Your task to perform on an android device: What's the news this evening? Image 0: 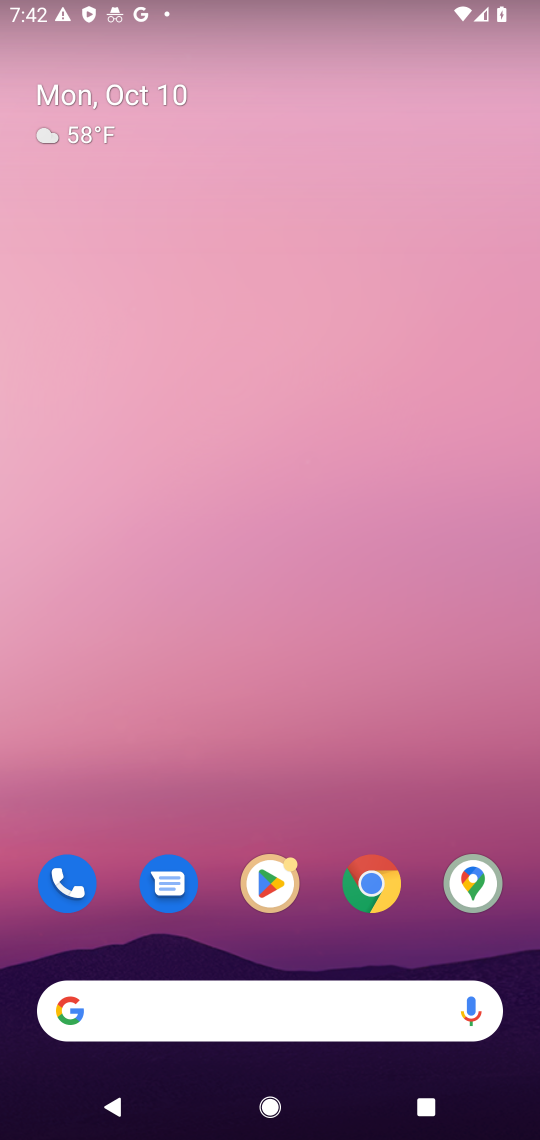
Step 0: drag from (369, 938) to (347, 182)
Your task to perform on an android device: What's the news this evening? Image 1: 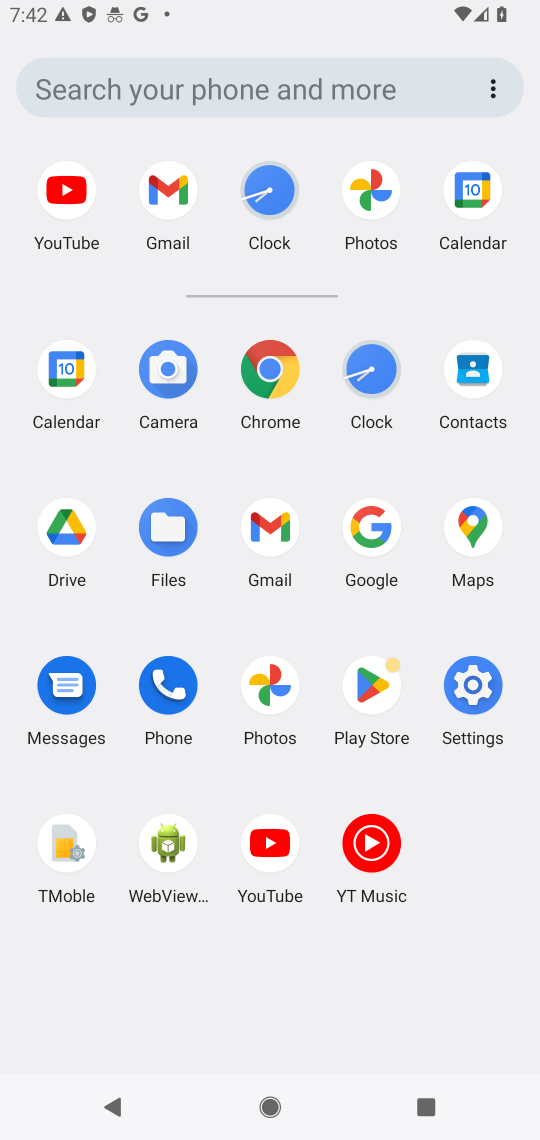
Step 1: click (381, 553)
Your task to perform on an android device: What's the news this evening? Image 2: 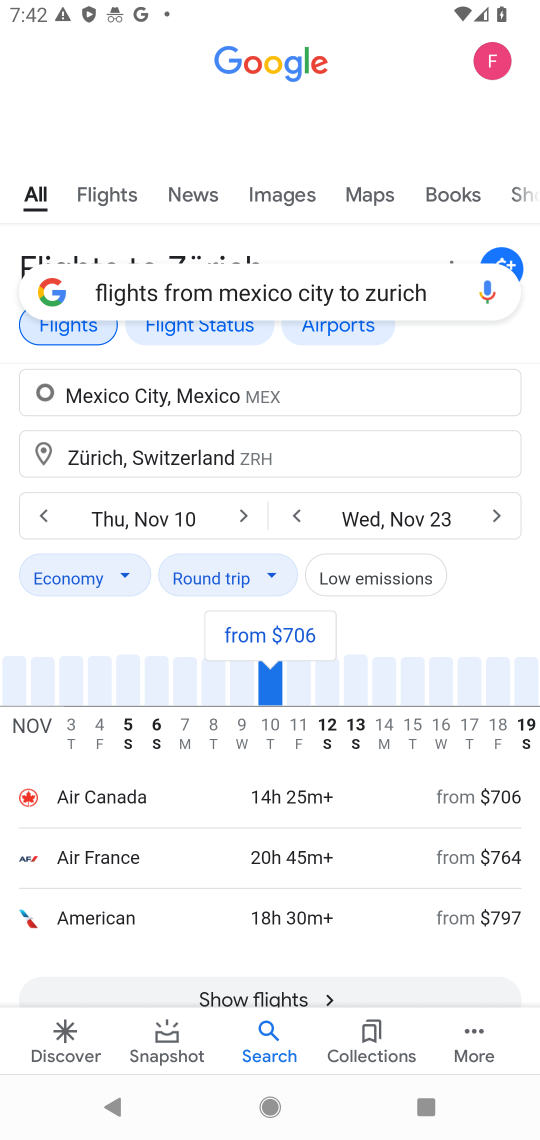
Step 2: click (427, 286)
Your task to perform on an android device: What's the news this evening? Image 3: 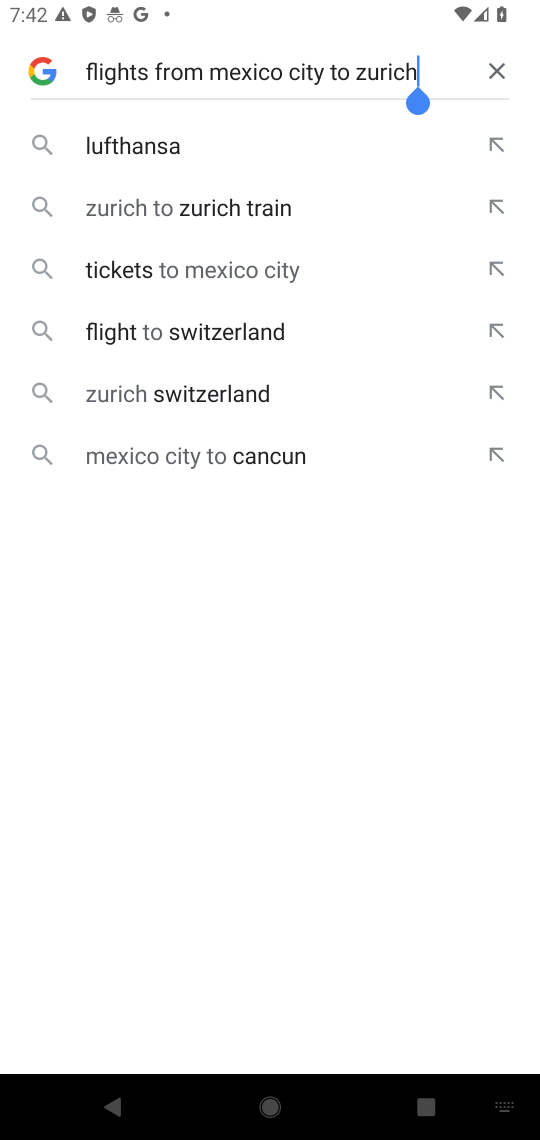
Step 3: click (496, 78)
Your task to perform on an android device: What's the news this evening? Image 4: 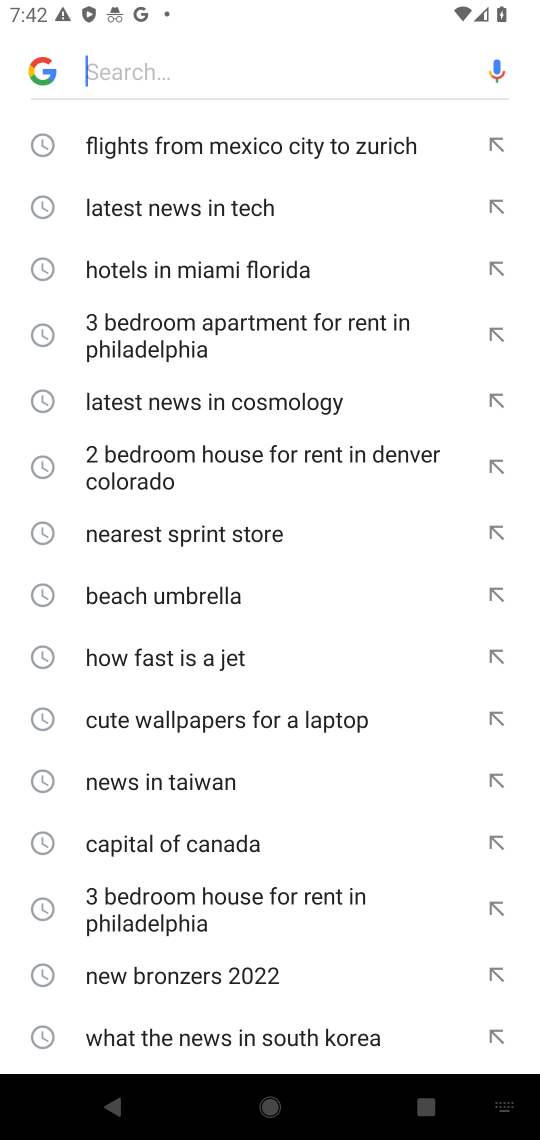
Step 4: type "news this evening"
Your task to perform on an android device: What's the news this evening? Image 5: 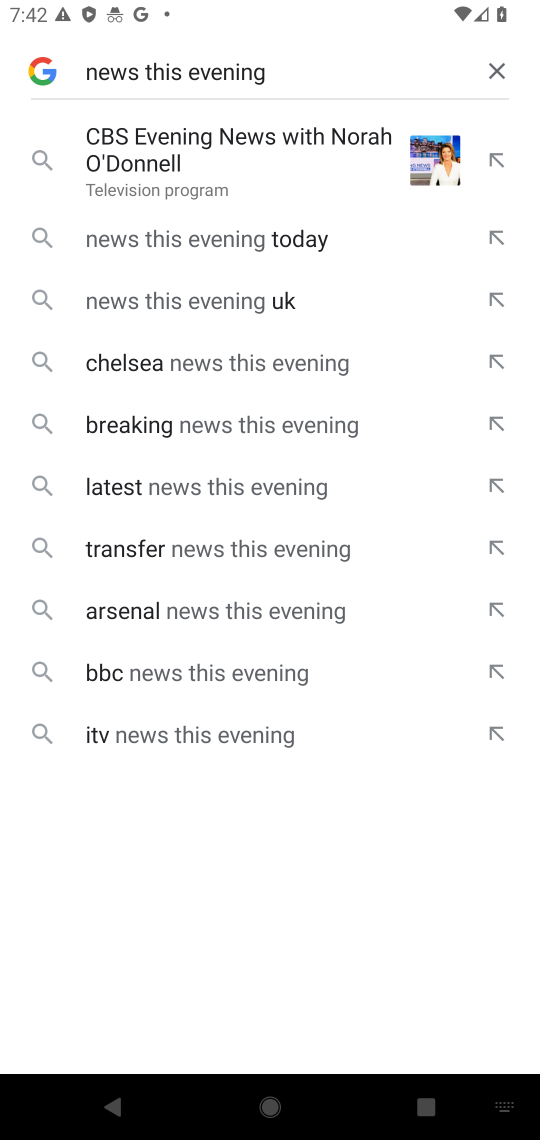
Step 5: click (283, 424)
Your task to perform on an android device: What's the news this evening? Image 6: 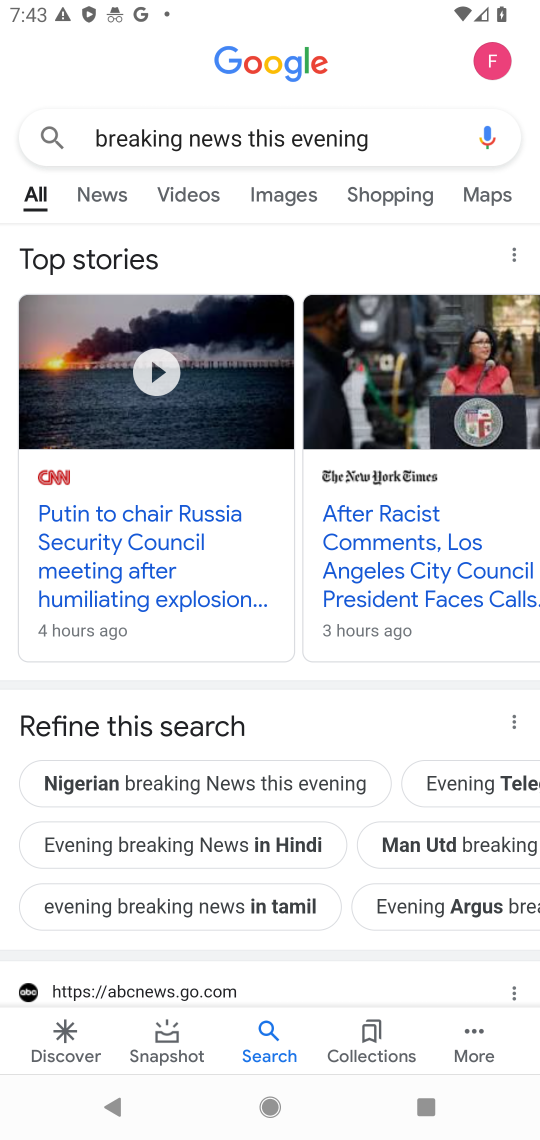
Step 6: click (109, 197)
Your task to perform on an android device: What's the news this evening? Image 7: 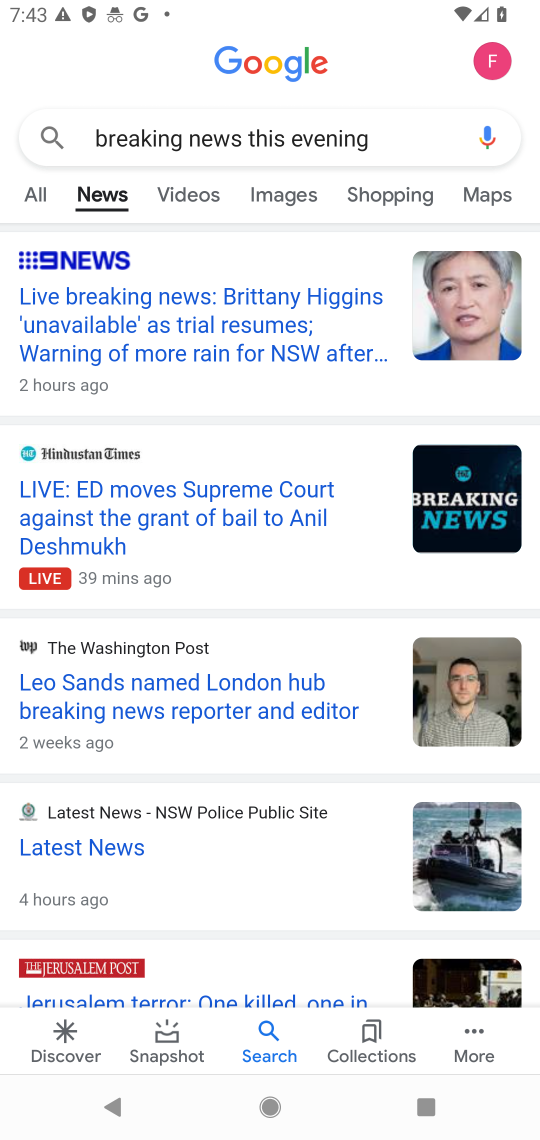
Step 7: task complete